Your task to perform on an android device: toggle priority inbox in the gmail app Image 0: 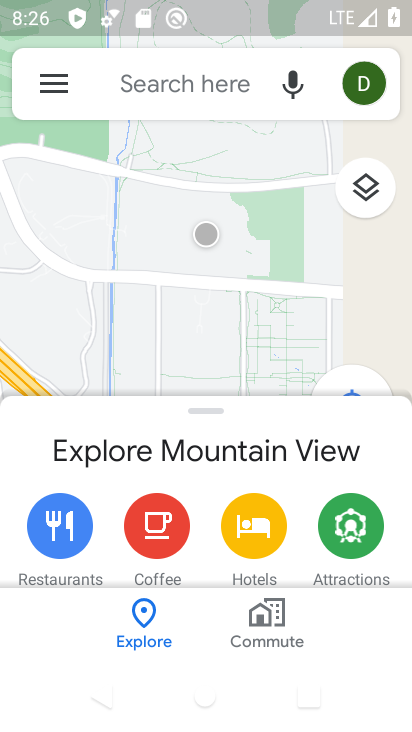
Step 0: press home button
Your task to perform on an android device: toggle priority inbox in the gmail app Image 1: 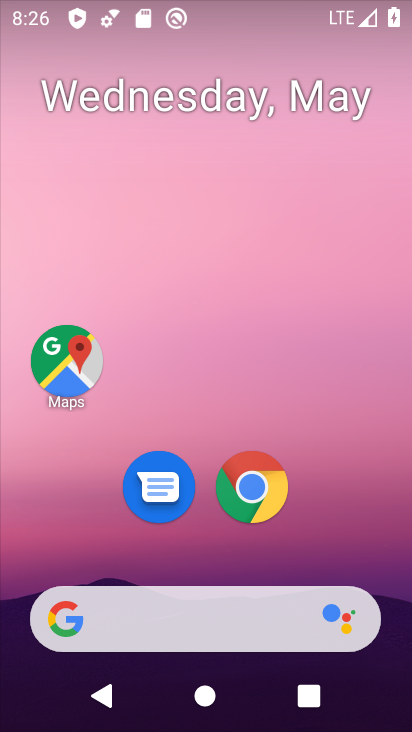
Step 1: drag from (208, 552) to (215, 320)
Your task to perform on an android device: toggle priority inbox in the gmail app Image 2: 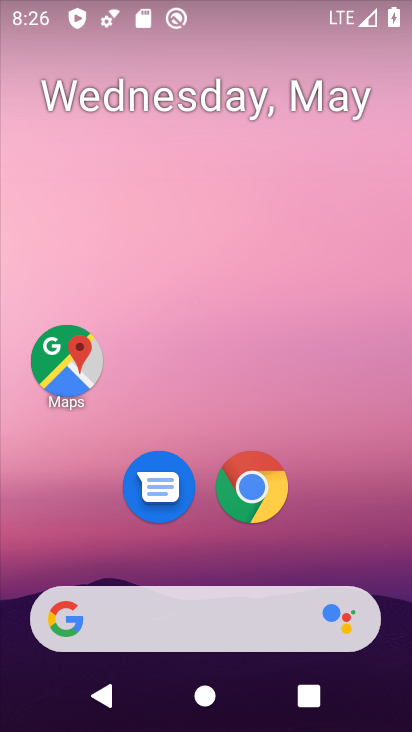
Step 2: drag from (185, 567) to (245, 141)
Your task to perform on an android device: toggle priority inbox in the gmail app Image 3: 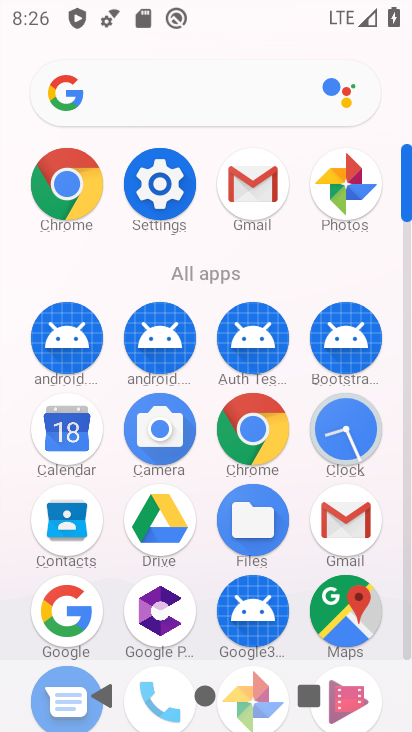
Step 3: click (245, 191)
Your task to perform on an android device: toggle priority inbox in the gmail app Image 4: 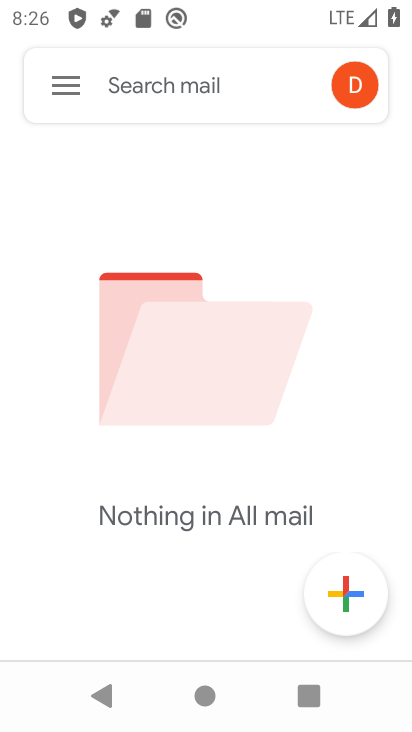
Step 4: click (74, 84)
Your task to perform on an android device: toggle priority inbox in the gmail app Image 5: 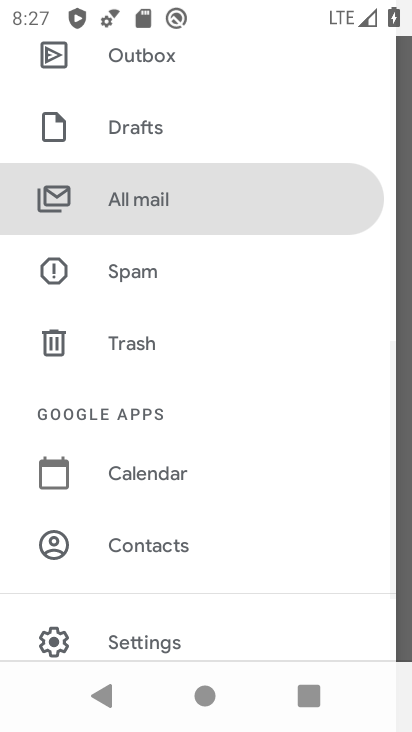
Step 5: drag from (188, 584) to (273, 267)
Your task to perform on an android device: toggle priority inbox in the gmail app Image 6: 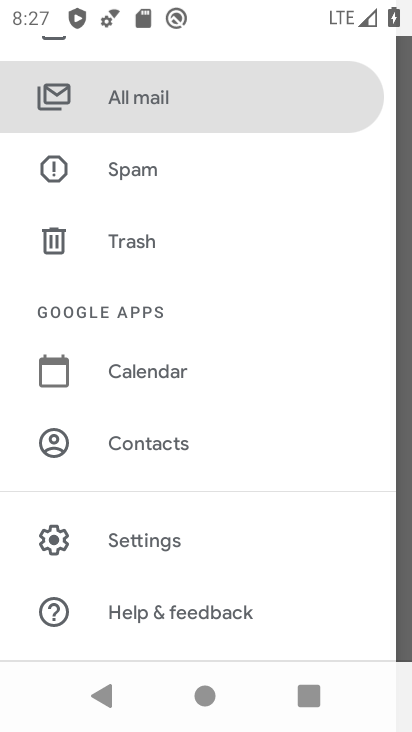
Step 6: click (165, 543)
Your task to perform on an android device: toggle priority inbox in the gmail app Image 7: 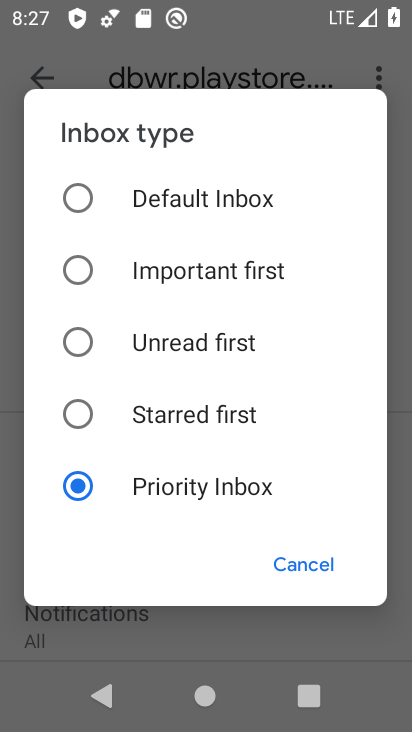
Step 7: click (163, 205)
Your task to perform on an android device: toggle priority inbox in the gmail app Image 8: 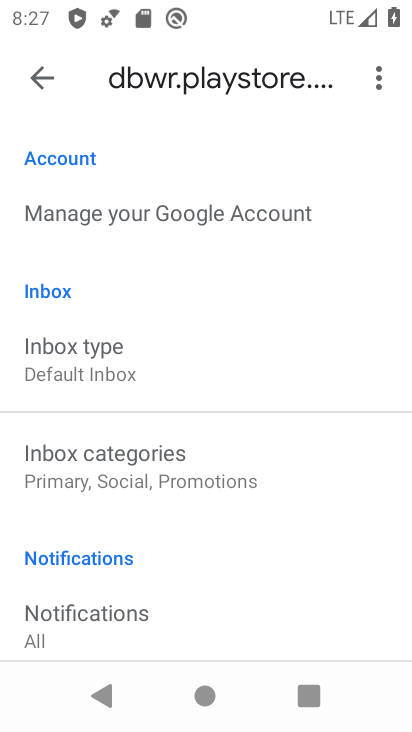
Step 8: task complete